Your task to perform on an android device: open wifi settings Image 0: 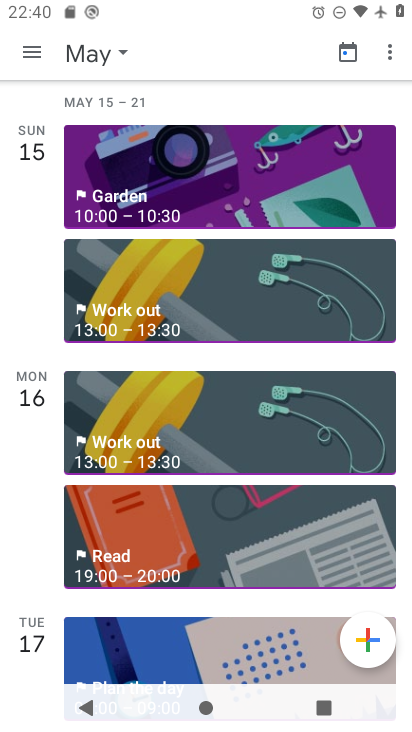
Step 0: press home button
Your task to perform on an android device: open wifi settings Image 1: 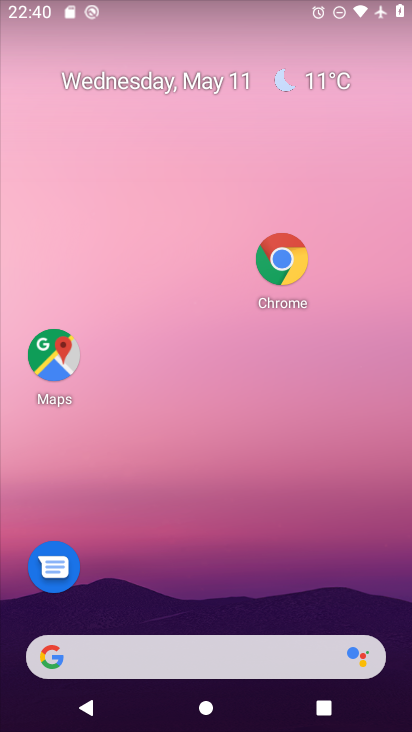
Step 1: drag from (149, 664) to (292, 132)
Your task to perform on an android device: open wifi settings Image 2: 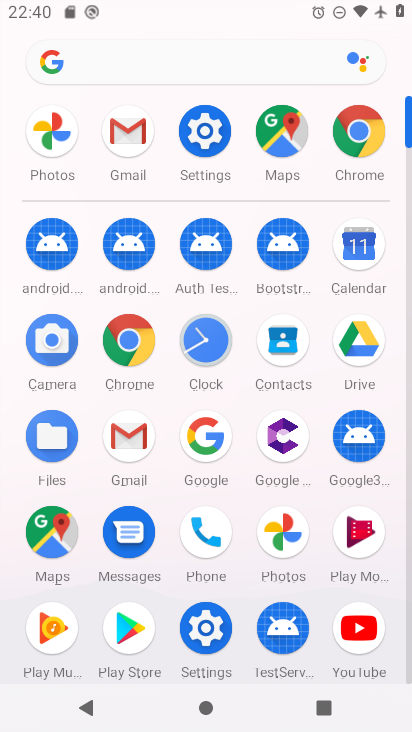
Step 2: click (211, 147)
Your task to perform on an android device: open wifi settings Image 3: 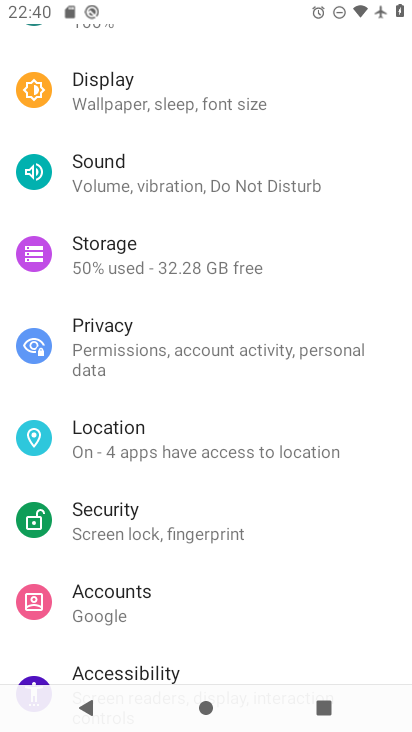
Step 3: drag from (324, 73) to (262, 545)
Your task to perform on an android device: open wifi settings Image 4: 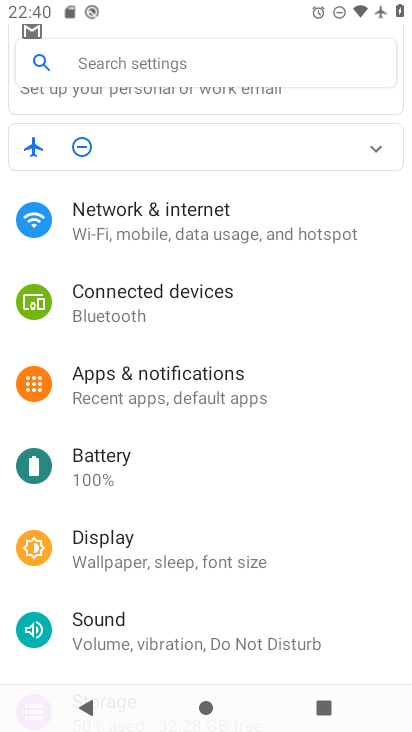
Step 4: click (185, 228)
Your task to perform on an android device: open wifi settings Image 5: 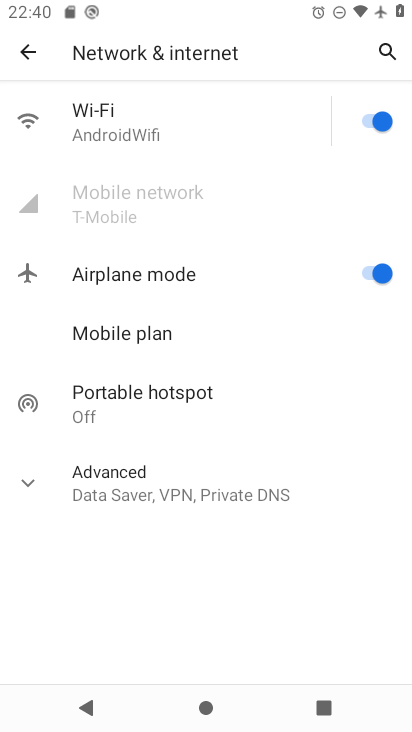
Step 5: click (131, 133)
Your task to perform on an android device: open wifi settings Image 6: 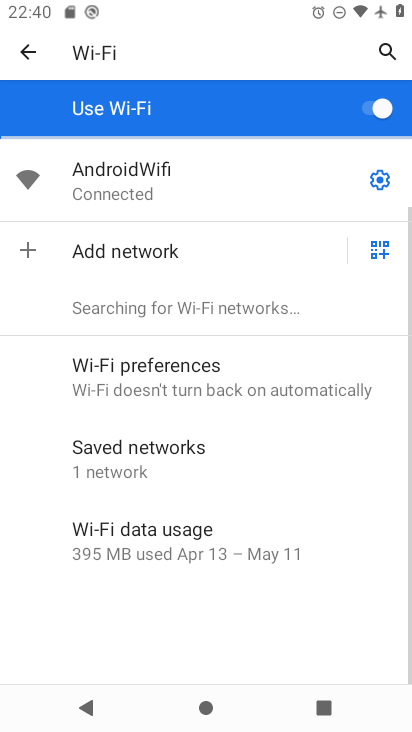
Step 6: task complete